Your task to perform on an android device: Open settings Image 0: 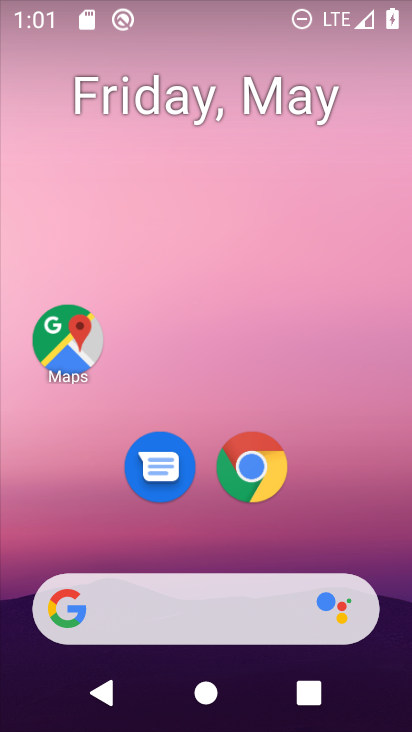
Step 0: drag from (283, 600) to (321, 11)
Your task to perform on an android device: Open settings Image 1: 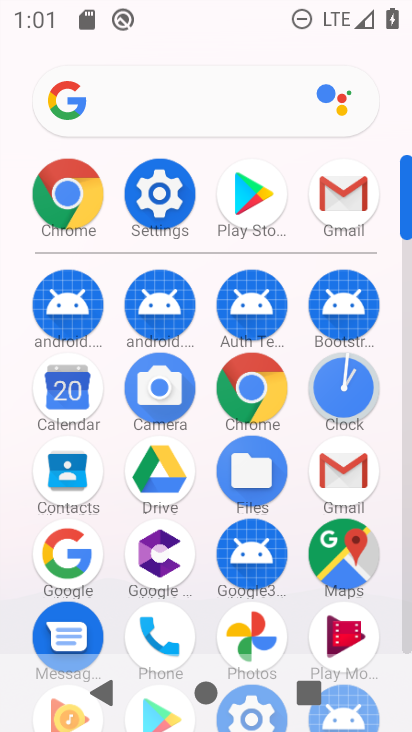
Step 1: click (168, 205)
Your task to perform on an android device: Open settings Image 2: 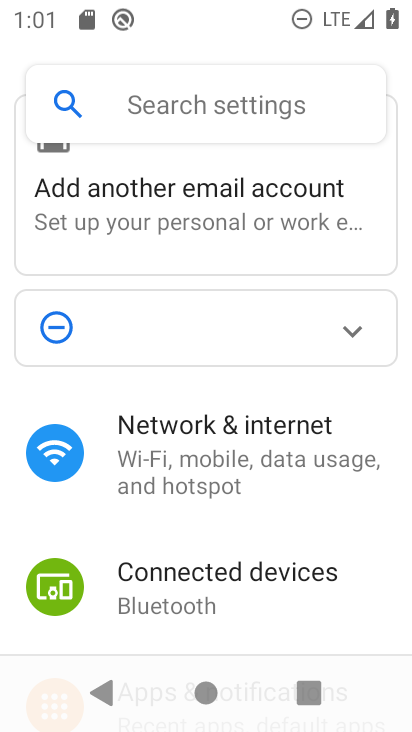
Step 2: task complete